Your task to perform on an android device: What's the weather going to be this weekend? Image 0: 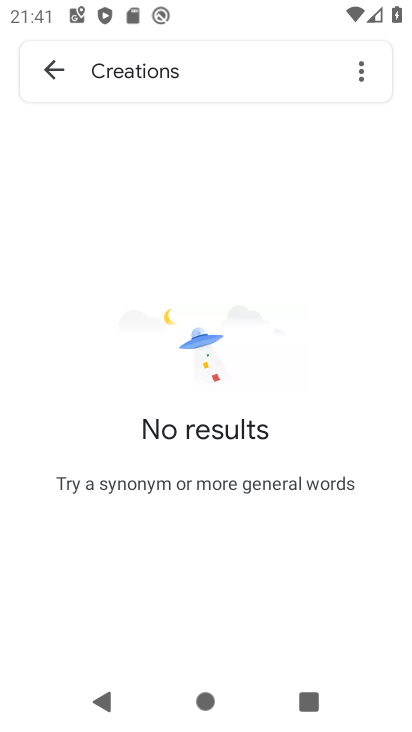
Step 0: press home button
Your task to perform on an android device: What's the weather going to be this weekend? Image 1: 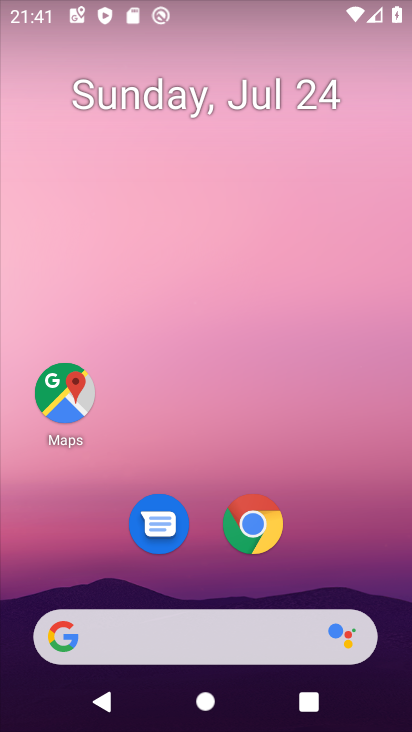
Step 1: click (146, 635)
Your task to perform on an android device: What's the weather going to be this weekend? Image 2: 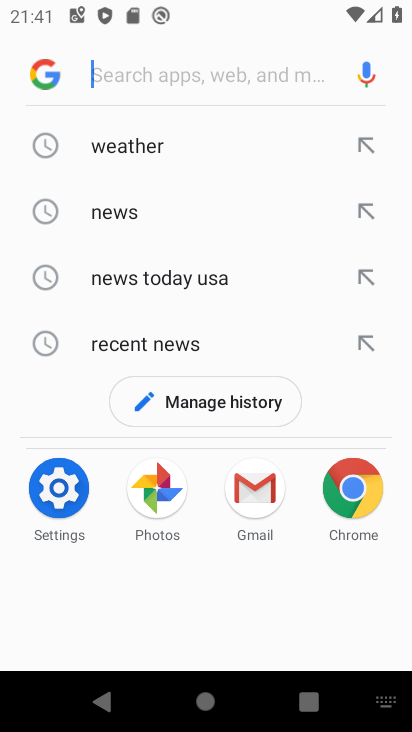
Step 2: click (148, 146)
Your task to perform on an android device: What's the weather going to be this weekend? Image 3: 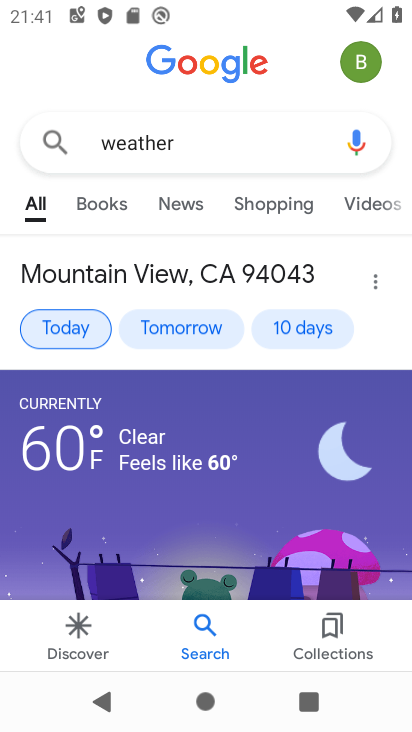
Step 3: click (315, 322)
Your task to perform on an android device: What's the weather going to be this weekend? Image 4: 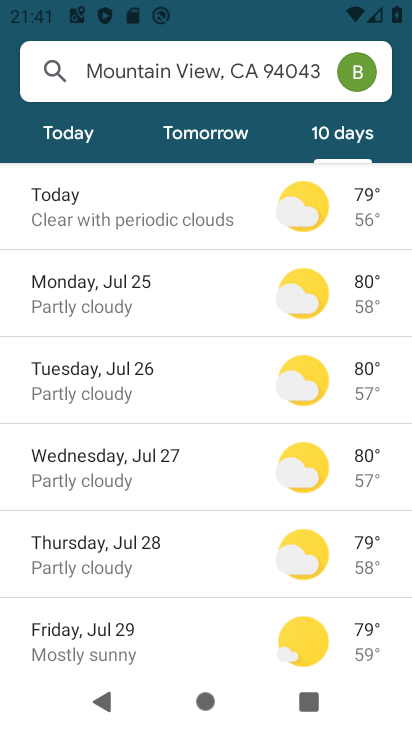
Step 4: task complete